Your task to perform on an android device: uninstall "Gboard" Image 0: 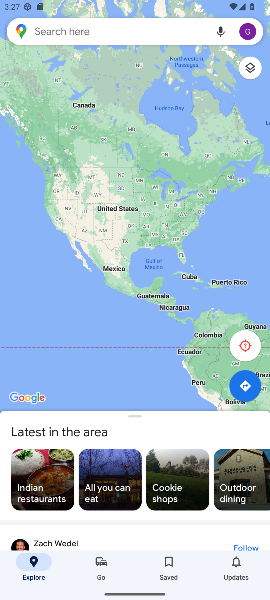
Step 0: press home button
Your task to perform on an android device: uninstall "Gboard" Image 1: 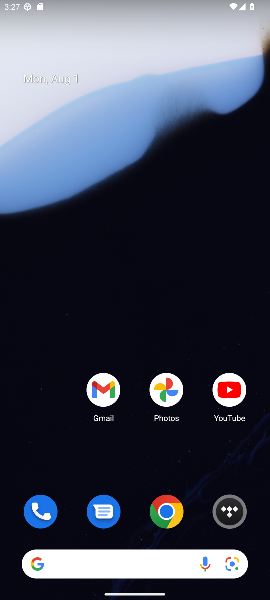
Step 1: drag from (136, 502) to (136, 73)
Your task to perform on an android device: uninstall "Gboard" Image 2: 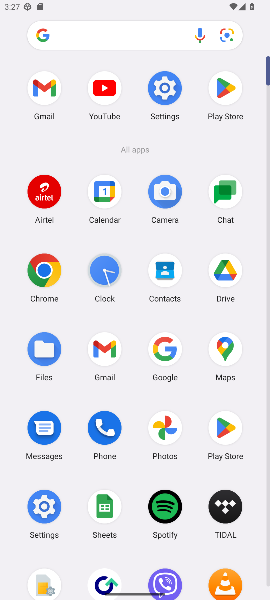
Step 2: click (221, 101)
Your task to perform on an android device: uninstall "Gboard" Image 3: 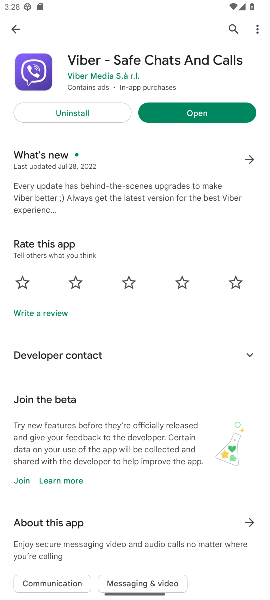
Step 3: click (16, 27)
Your task to perform on an android device: uninstall "Gboard" Image 4: 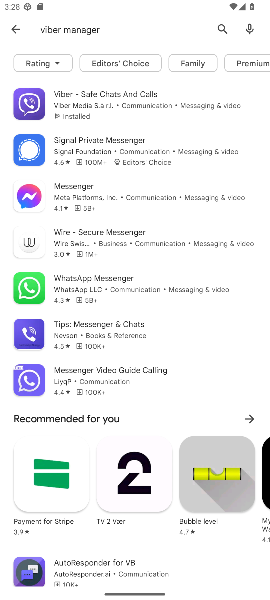
Step 4: click (12, 24)
Your task to perform on an android device: uninstall "Gboard" Image 5: 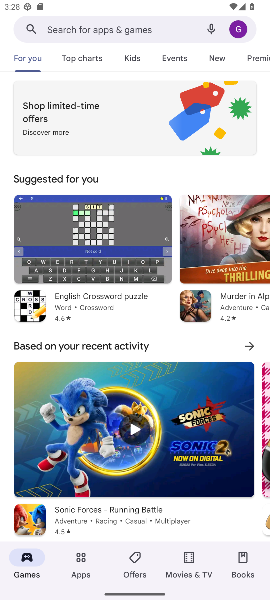
Step 5: click (85, 24)
Your task to perform on an android device: uninstall "Gboard" Image 6: 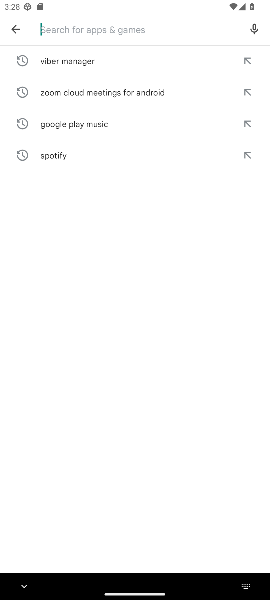
Step 6: type "Gboard"
Your task to perform on an android device: uninstall "Gboard" Image 7: 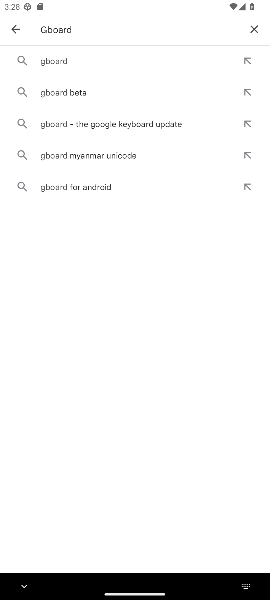
Step 7: click (56, 59)
Your task to perform on an android device: uninstall "Gboard" Image 8: 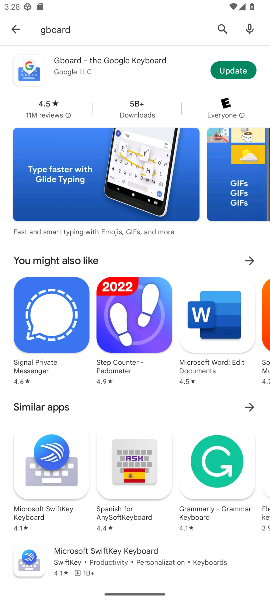
Step 8: click (65, 67)
Your task to perform on an android device: uninstall "Gboard" Image 9: 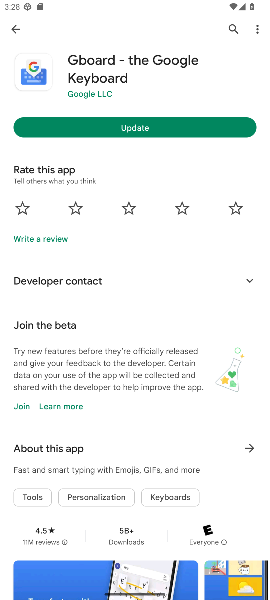
Step 9: click (46, 82)
Your task to perform on an android device: uninstall "Gboard" Image 10: 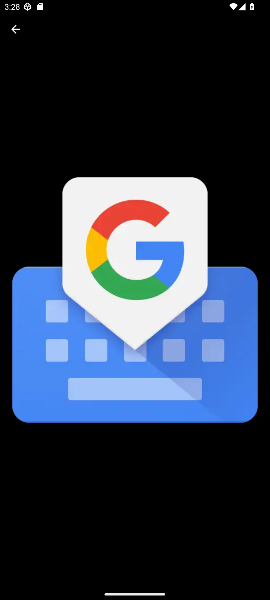
Step 10: click (23, 32)
Your task to perform on an android device: uninstall "Gboard" Image 11: 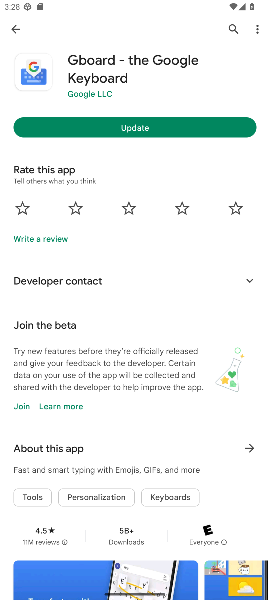
Step 11: click (130, 123)
Your task to perform on an android device: uninstall "Gboard" Image 12: 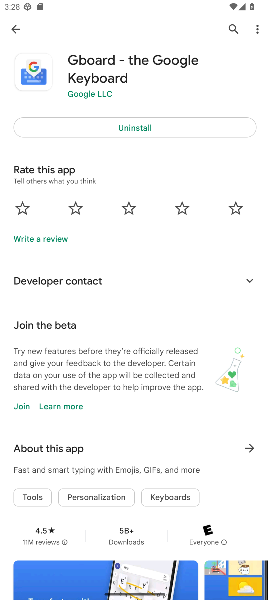
Step 12: click (131, 128)
Your task to perform on an android device: uninstall "Gboard" Image 13: 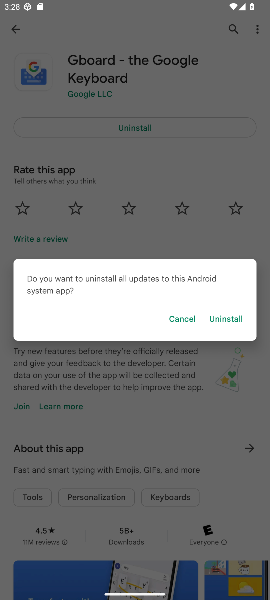
Step 13: click (224, 316)
Your task to perform on an android device: uninstall "Gboard" Image 14: 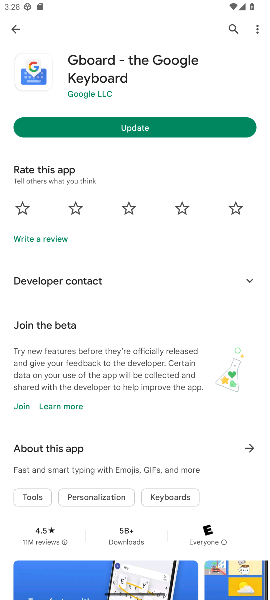
Step 14: task complete